Your task to perform on an android device: change notification settings in the gmail app Image 0: 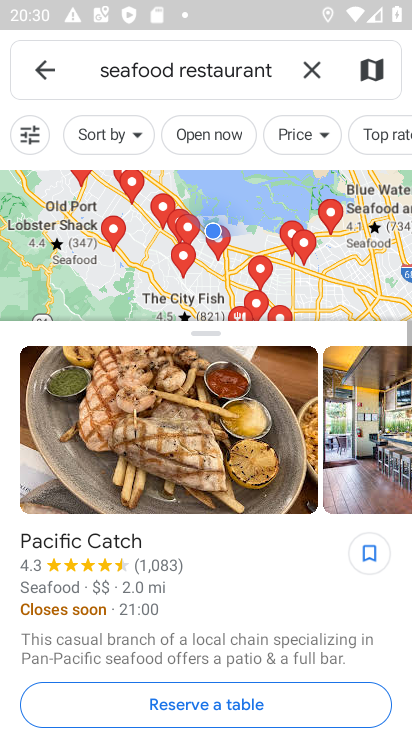
Step 0: press home button
Your task to perform on an android device: change notification settings in the gmail app Image 1: 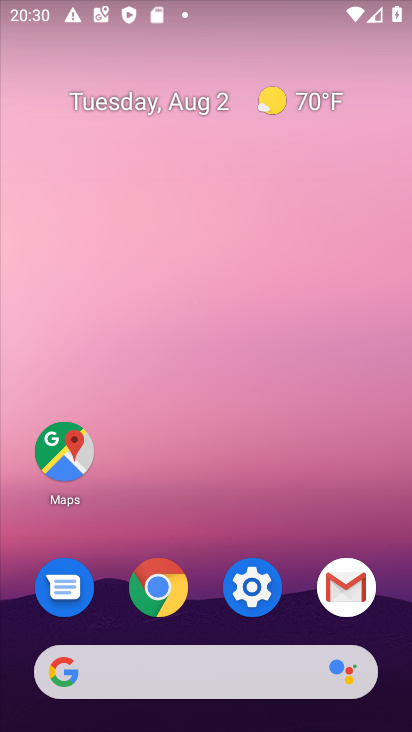
Step 1: click (337, 578)
Your task to perform on an android device: change notification settings in the gmail app Image 2: 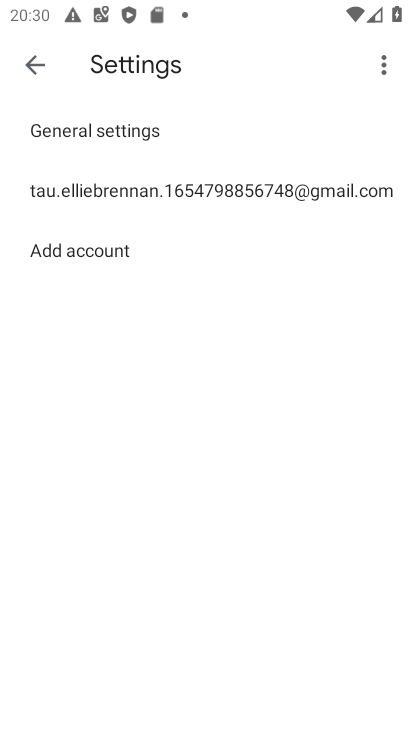
Step 2: click (112, 201)
Your task to perform on an android device: change notification settings in the gmail app Image 3: 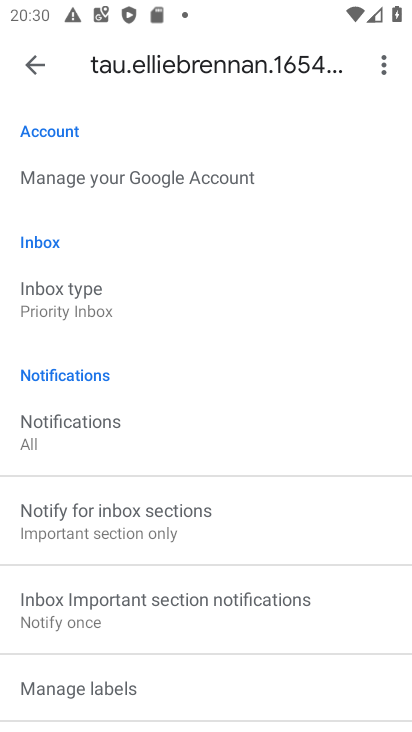
Step 3: click (90, 429)
Your task to perform on an android device: change notification settings in the gmail app Image 4: 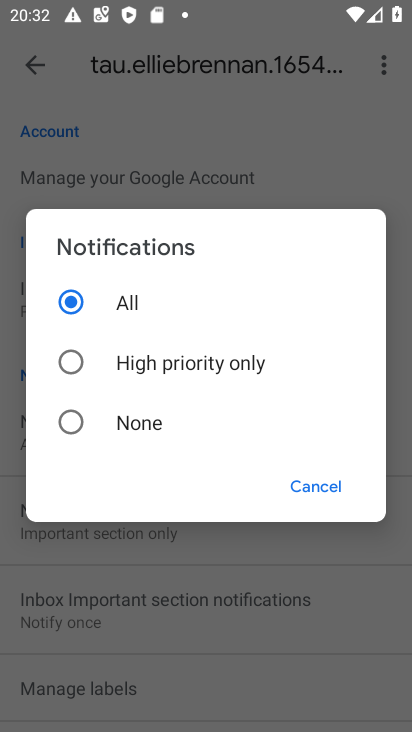
Step 4: task complete